Your task to perform on an android device: turn on notifications settings in the gmail app Image 0: 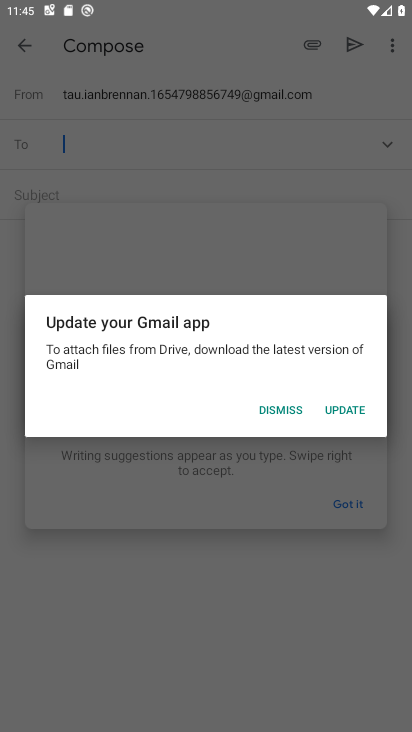
Step 0: press home button
Your task to perform on an android device: turn on notifications settings in the gmail app Image 1: 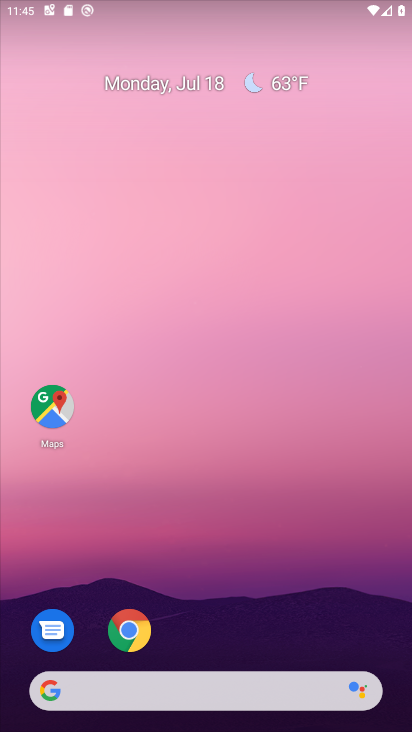
Step 1: drag from (181, 662) to (222, 144)
Your task to perform on an android device: turn on notifications settings in the gmail app Image 2: 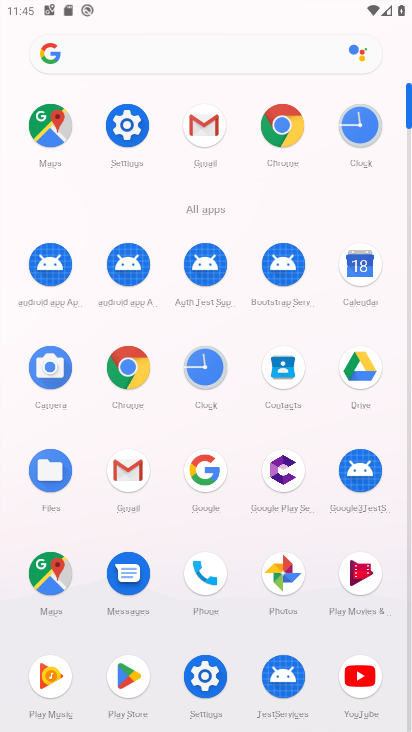
Step 2: click (126, 465)
Your task to perform on an android device: turn on notifications settings in the gmail app Image 3: 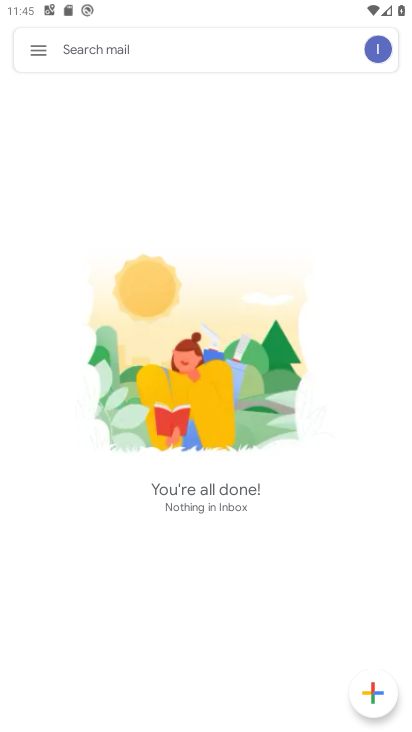
Step 3: click (39, 52)
Your task to perform on an android device: turn on notifications settings in the gmail app Image 4: 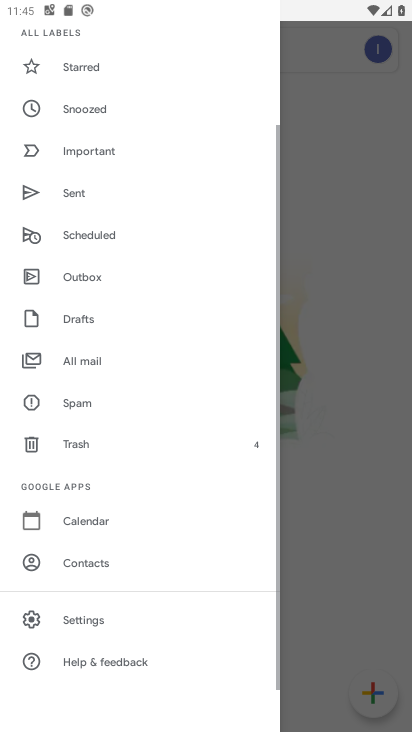
Step 4: click (92, 618)
Your task to perform on an android device: turn on notifications settings in the gmail app Image 5: 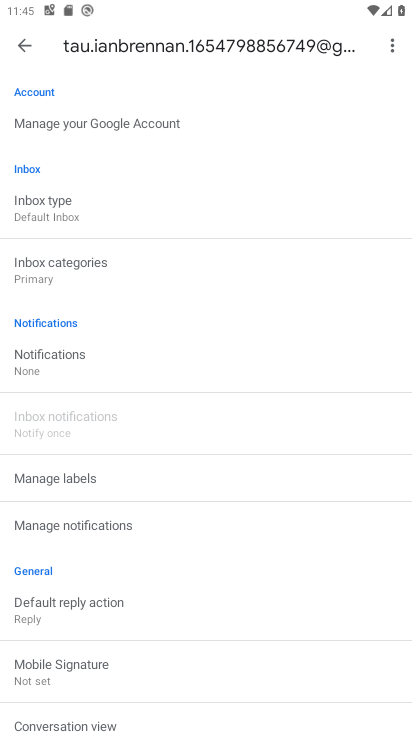
Step 5: click (48, 359)
Your task to perform on an android device: turn on notifications settings in the gmail app Image 6: 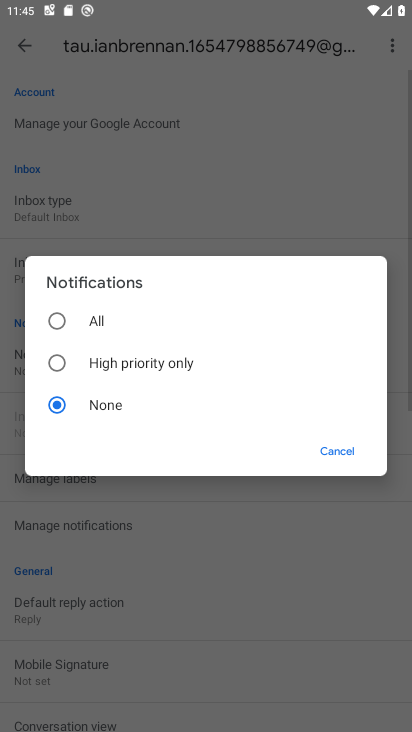
Step 6: click (78, 318)
Your task to perform on an android device: turn on notifications settings in the gmail app Image 7: 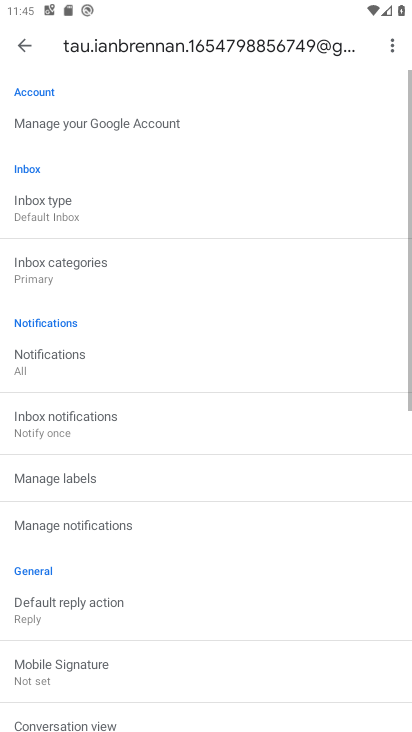
Step 7: task complete